Your task to perform on an android device: Do I have any events this weekend? Image 0: 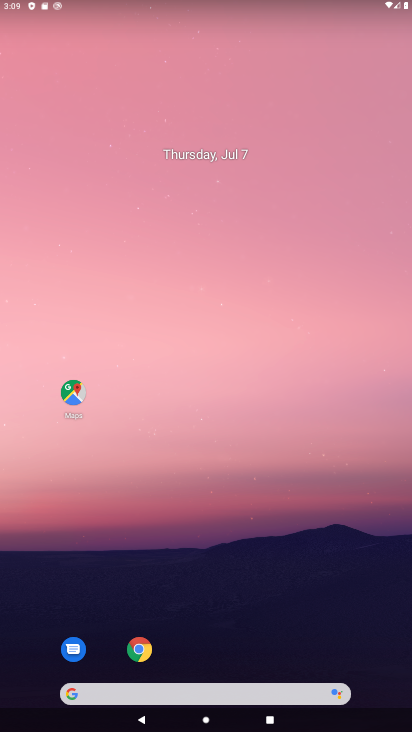
Step 0: drag from (183, 644) to (276, 120)
Your task to perform on an android device: Do I have any events this weekend? Image 1: 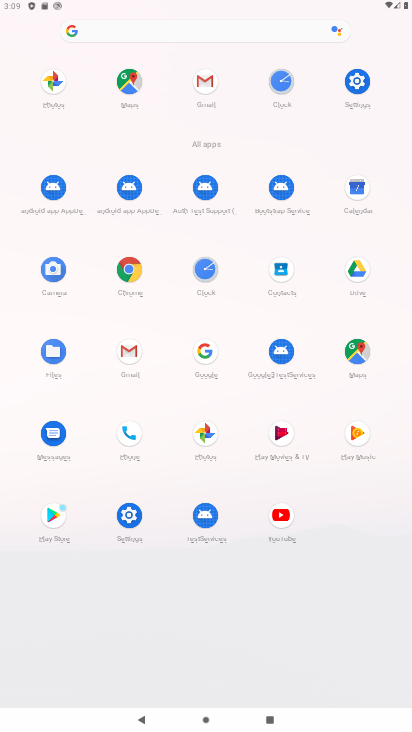
Step 1: click (355, 185)
Your task to perform on an android device: Do I have any events this weekend? Image 2: 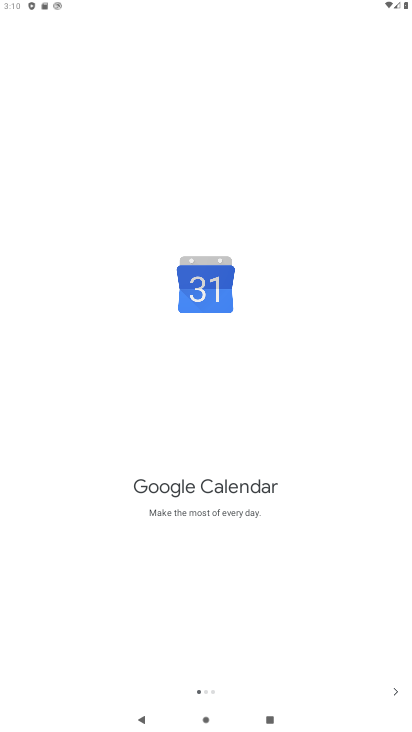
Step 2: click (396, 688)
Your task to perform on an android device: Do I have any events this weekend? Image 3: 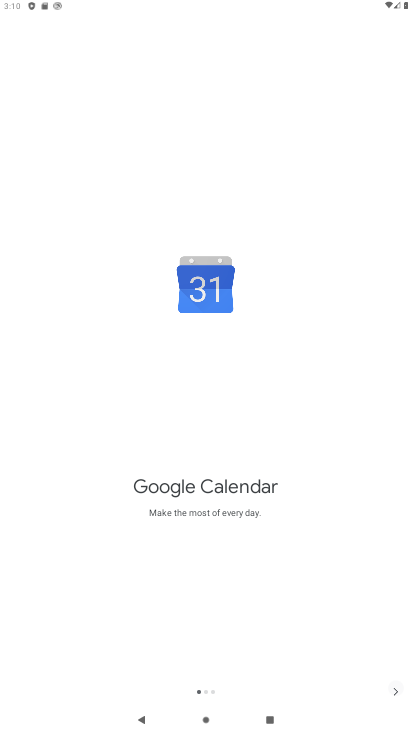
Step 3: click (396, 688)
Your task to perform on an android device: Do I have any events this weekend? Image 4: 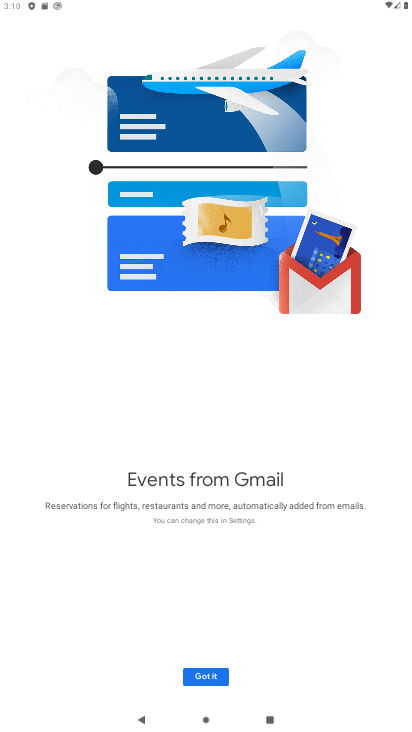
Step 4: click (395, 689)
Your task to perform on an android device: Do I have any events this weekend? Image 5: 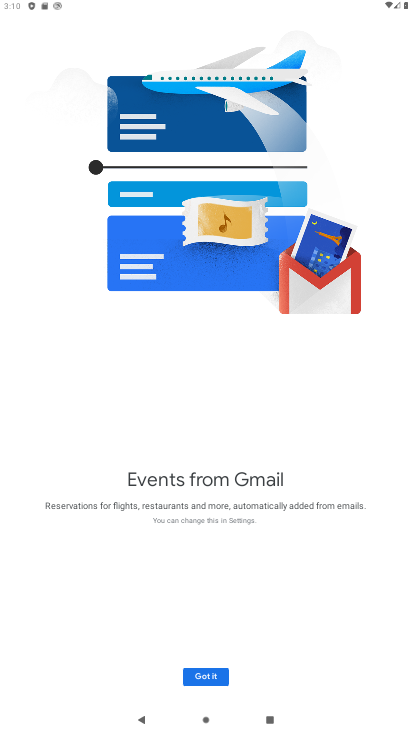
Step 5: click (202, 675)
Your task to perform on an android device: Do I have any events this weekend? Image 6: 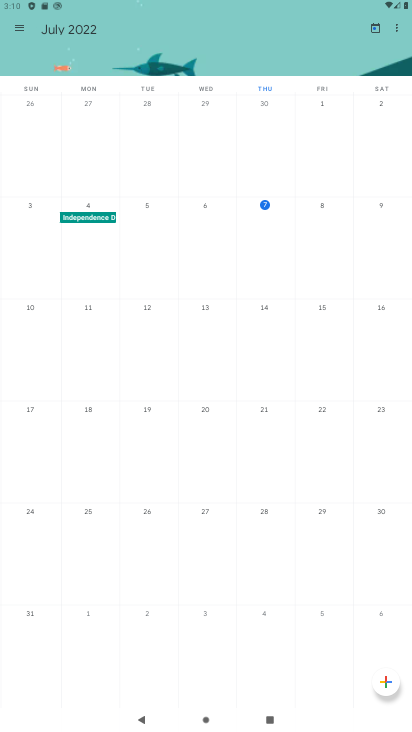
Step 6: drag from (229, 485) to (269, 338)
Your task to perform on an android device: Do I have any events this weekend? Image 7: 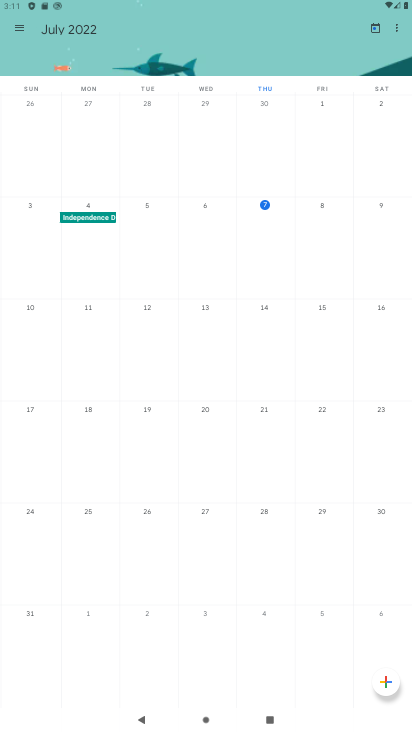
Step 7: drag from (199, 487) to (237, 281)
Your task to perform on an android device: Do I have any events this weekend? Image 8: 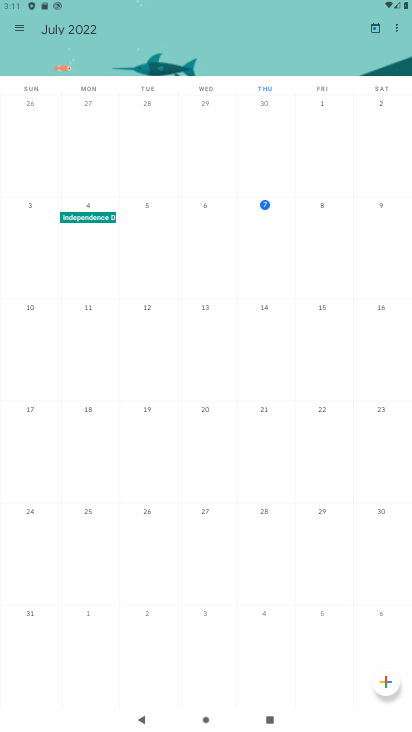
Step 8: drag from (172, 202) to (184, 320)
Your task to perform on an android device: Do I have any events this weekend? Image 9: 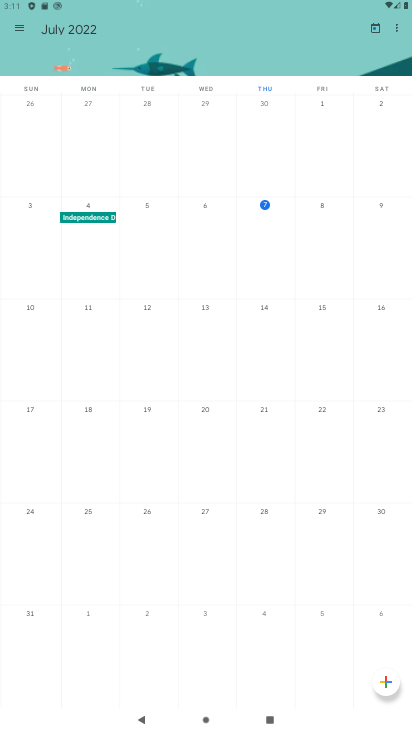
Step 9: click (380, 205)
Your task to perform on an android device: Do I have any events this weekend? Image 10: 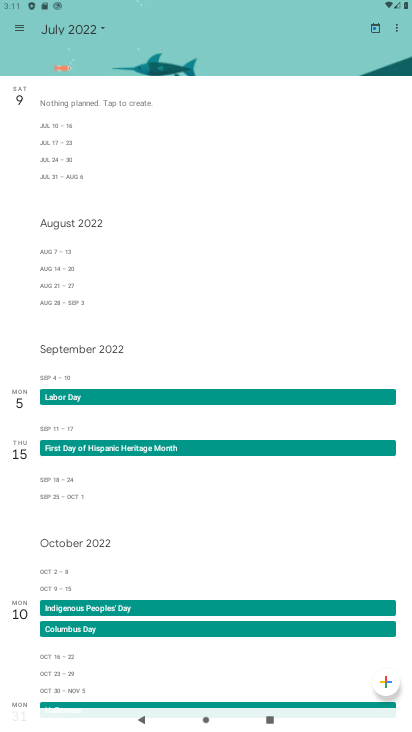
Step 10: task complete